Your task to perform on an android device: Go to Google maps Image 0: 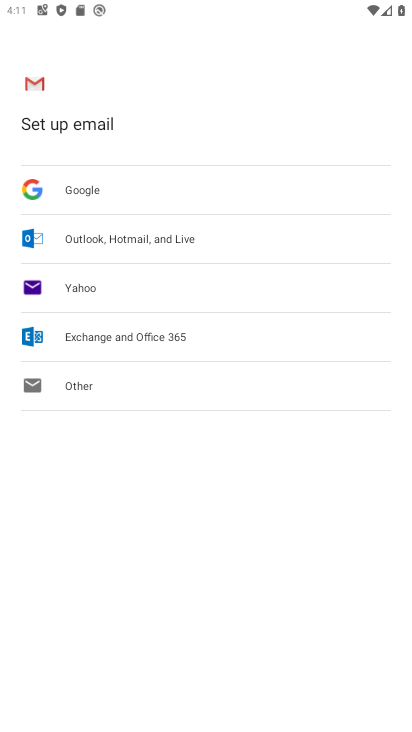
Step 0: press back button
Your task to perform on an android device: Go to Google maps Image 1: 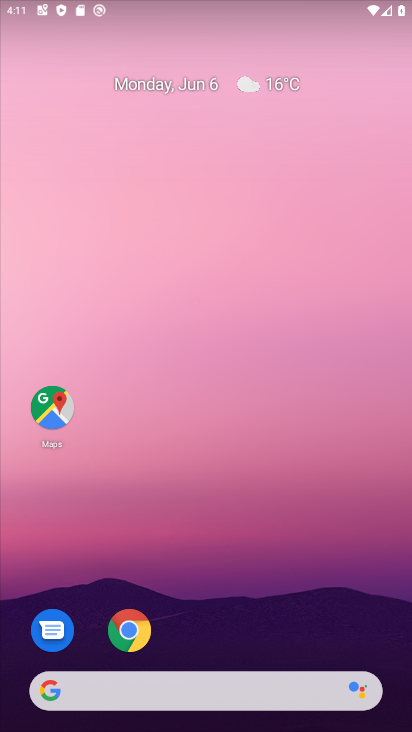
Step 1: drag from (251, 639) to (251, 682)
Your task to perform on an android device: Go to Google maps Image 2: 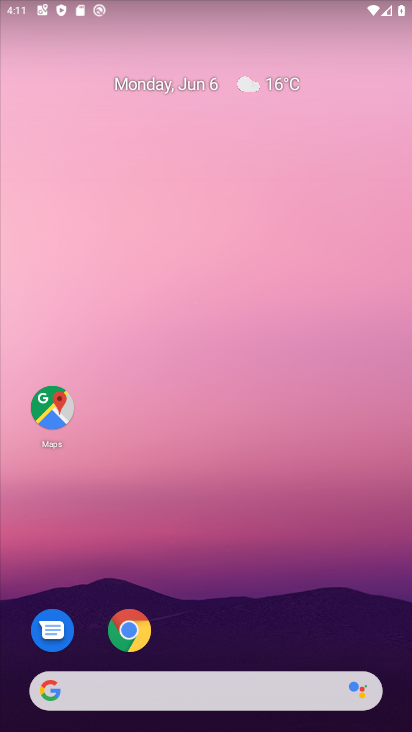
Step 2: click (39, 402)
Your task to perform on an android device: Go to Google maps Image 3: 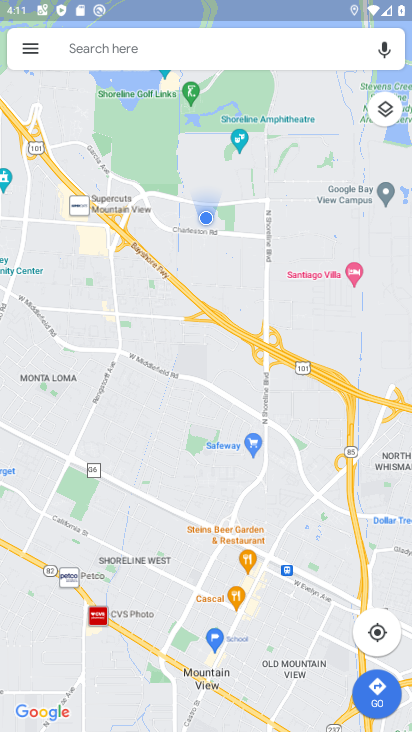
Step 3: task complete